Your task to perform on an android device: turn off location Image 0: 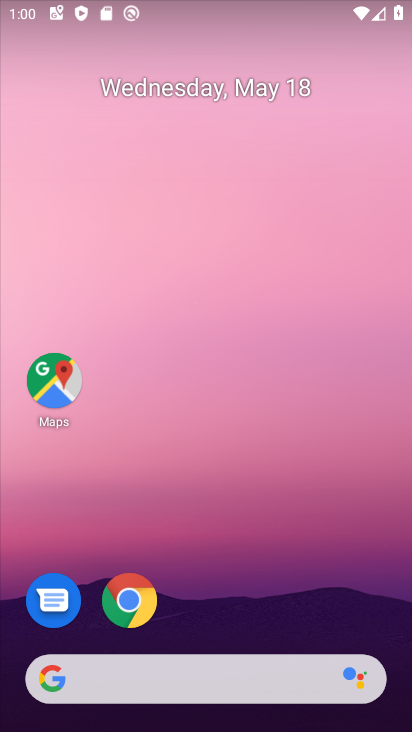
Step 0: drag from (252, 563) to (183, 145)
Your task to perform on an android device: turn off location Image 1: 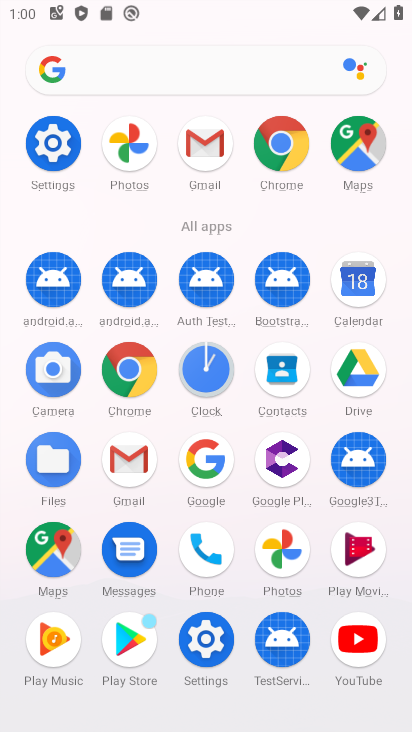
Step 1: click (200, 638)
Your task to perform on an android device: turn off location Image 2: 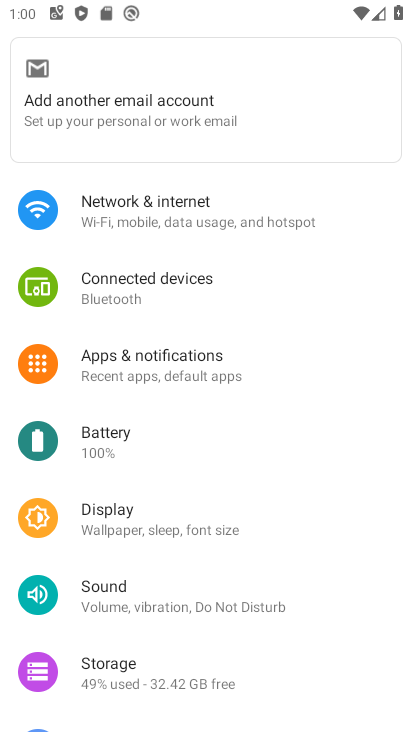
Step 2: drag from (176, 508) to (156, 358)
Your task to perform on an android device: turn off location Image 3: 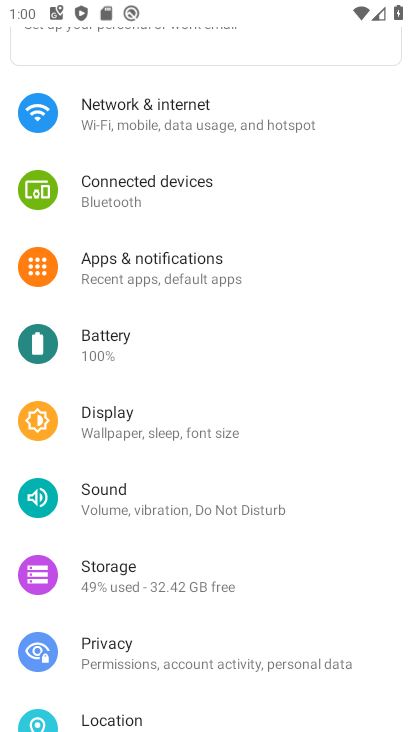
Step 3: drag from (159, 562) to (217, 403)
Your task to perform on an android device: turn off location Image 4: 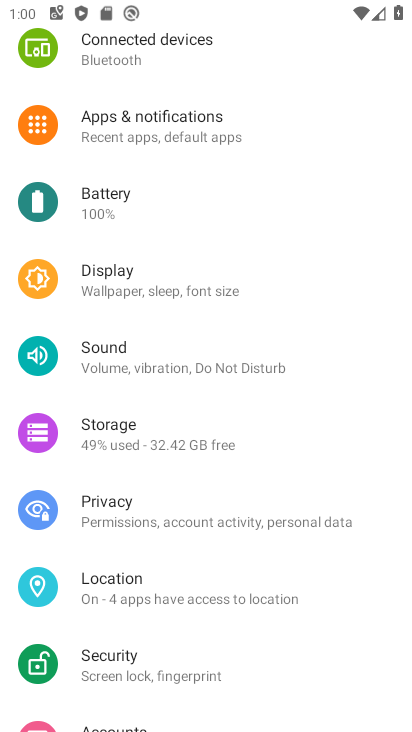
Step 4: click (120, 594)
Your task to perform on an android device: turn off location Image 5: 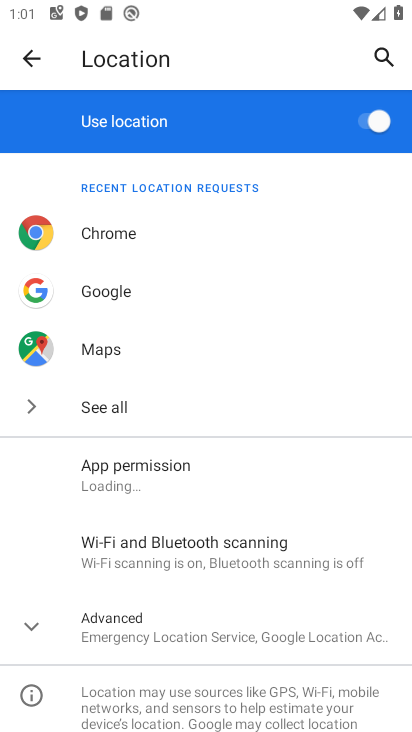
Step 5: click (380, 124)
Your task to perform on an android device: turn off location Image 6: 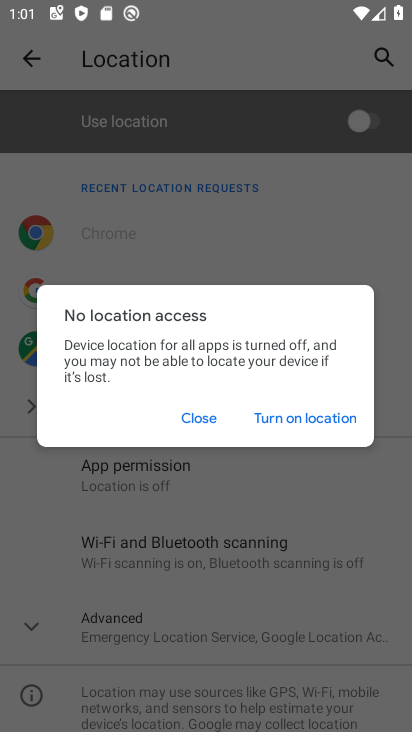
Step 6: click (205, 417)
Your task to perform on an android device: turn off location Image 7: 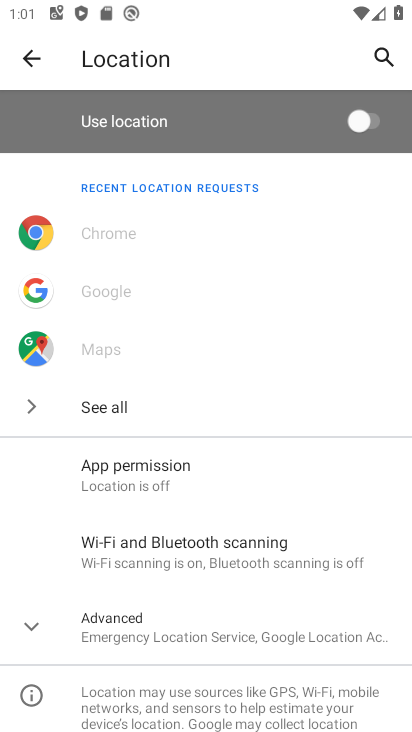
Step 7: task complete